Your task to perform on an android device: Go to CNN.com Image 0: 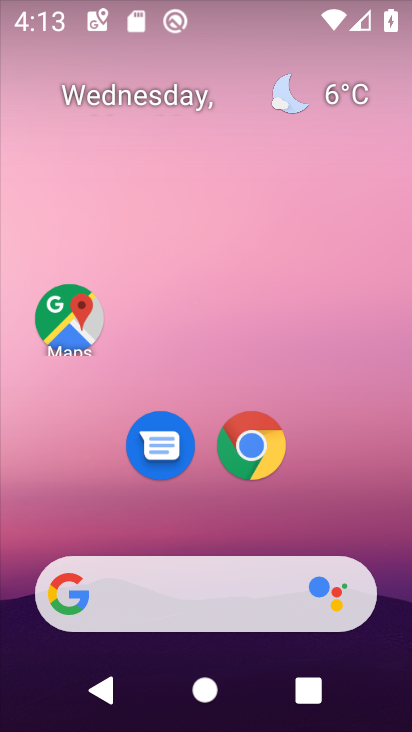
Step 0: click (259, 457)
Your task to perform on an android device: Go to CNN.com Image 1: 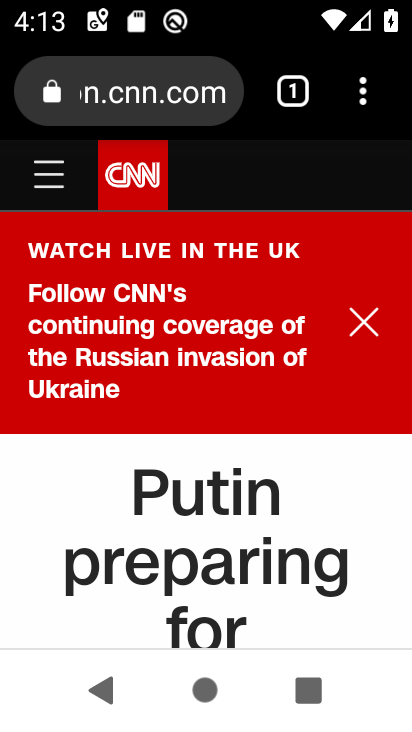
Step 1: task complete